Your task to perform on an android device: Open calendar and show me the second week of next month Image 0: 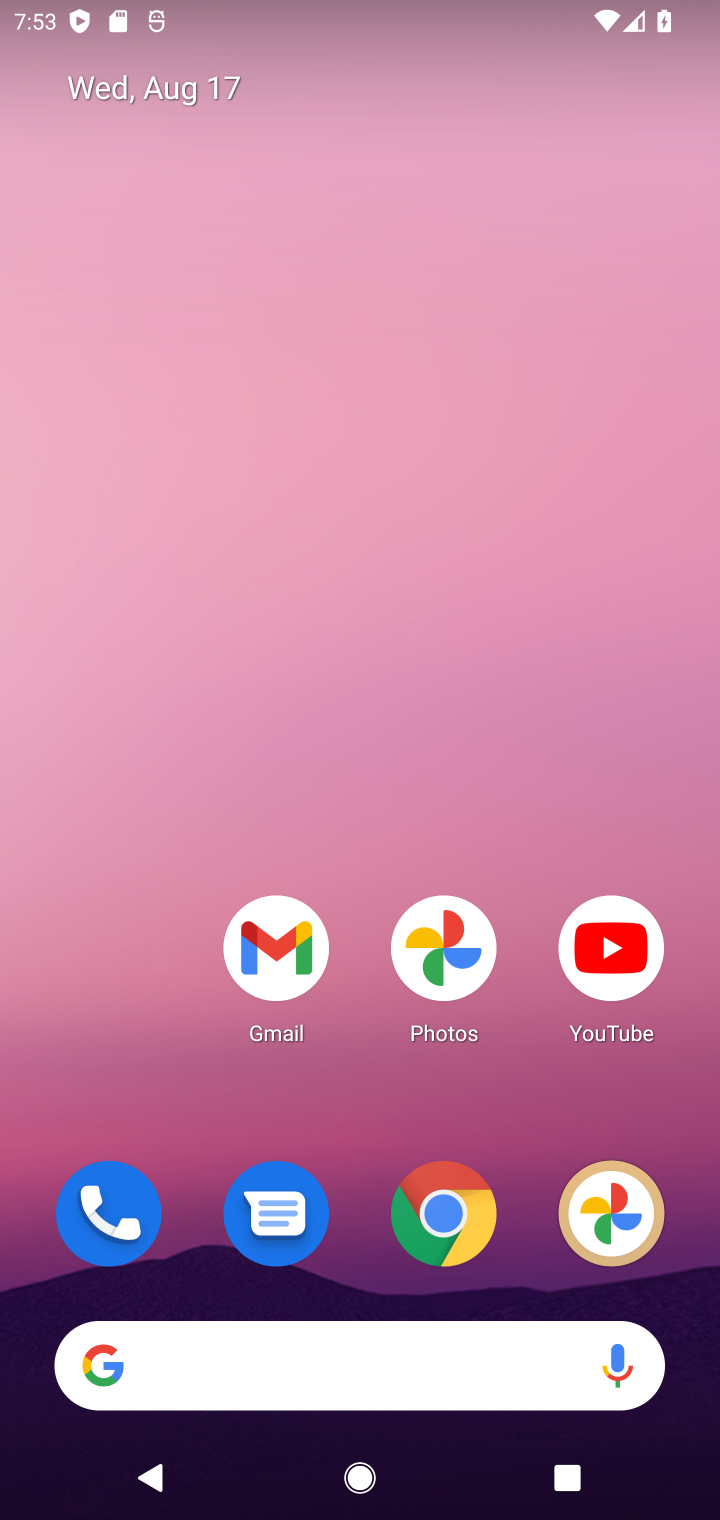
Step 0: drag from (371, 1269) to (367, 233)
Your task to perform on an android device: Open calendar and show me the second week of next month Image 1: 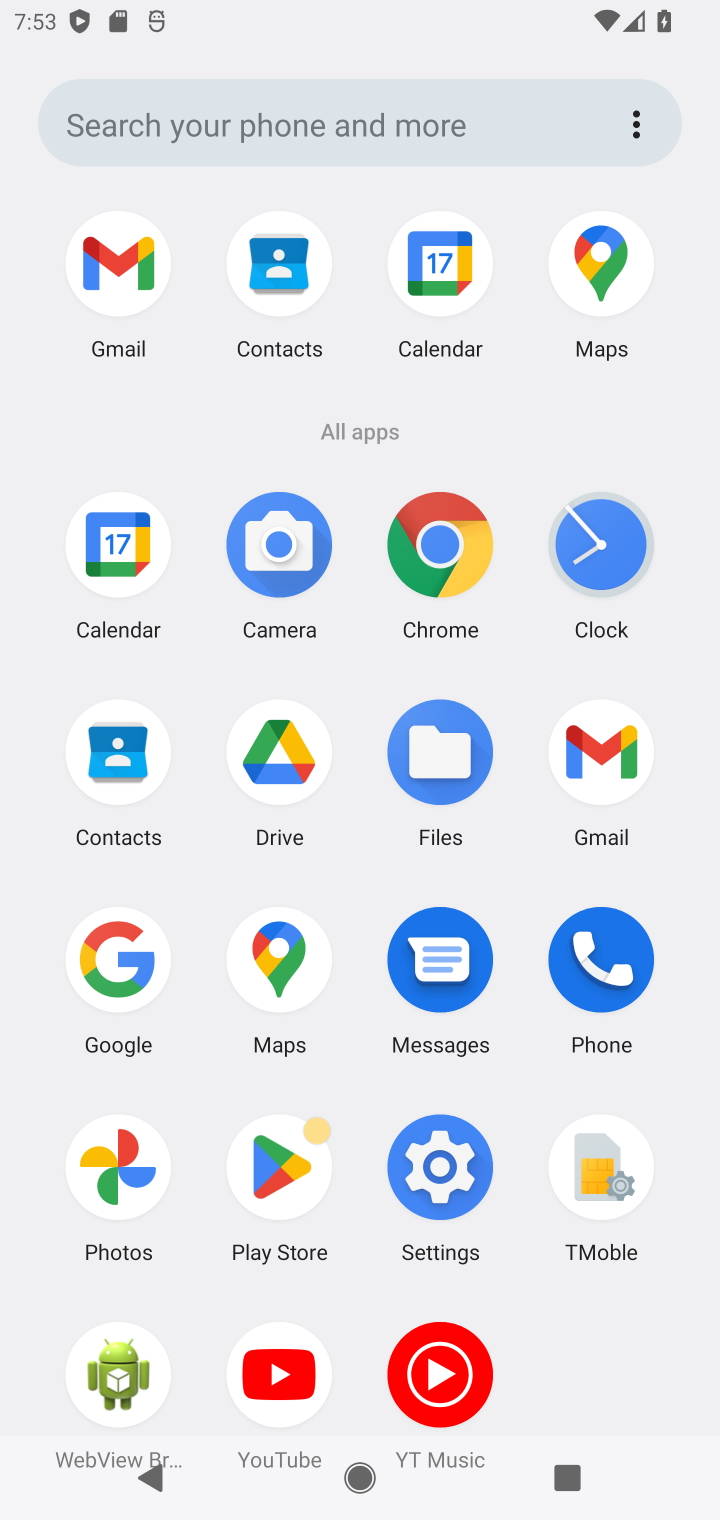
Step 1: click (320, 310)
Your task to perform on an android device: Open calendar and show me the second week of next month Image 2: 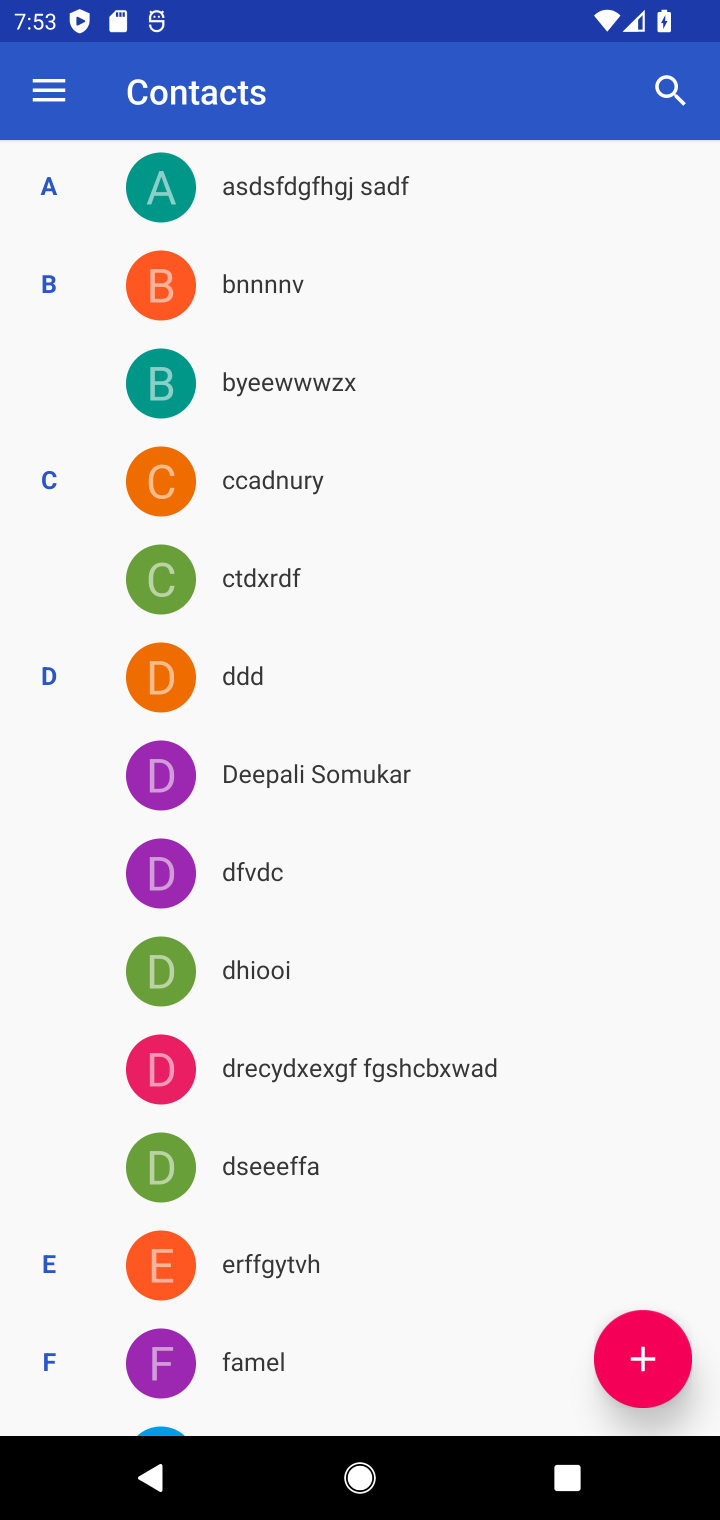
Step 2: press home button
Your task to perform on an android device: Open calendar and show me the second week of next month Image 3: 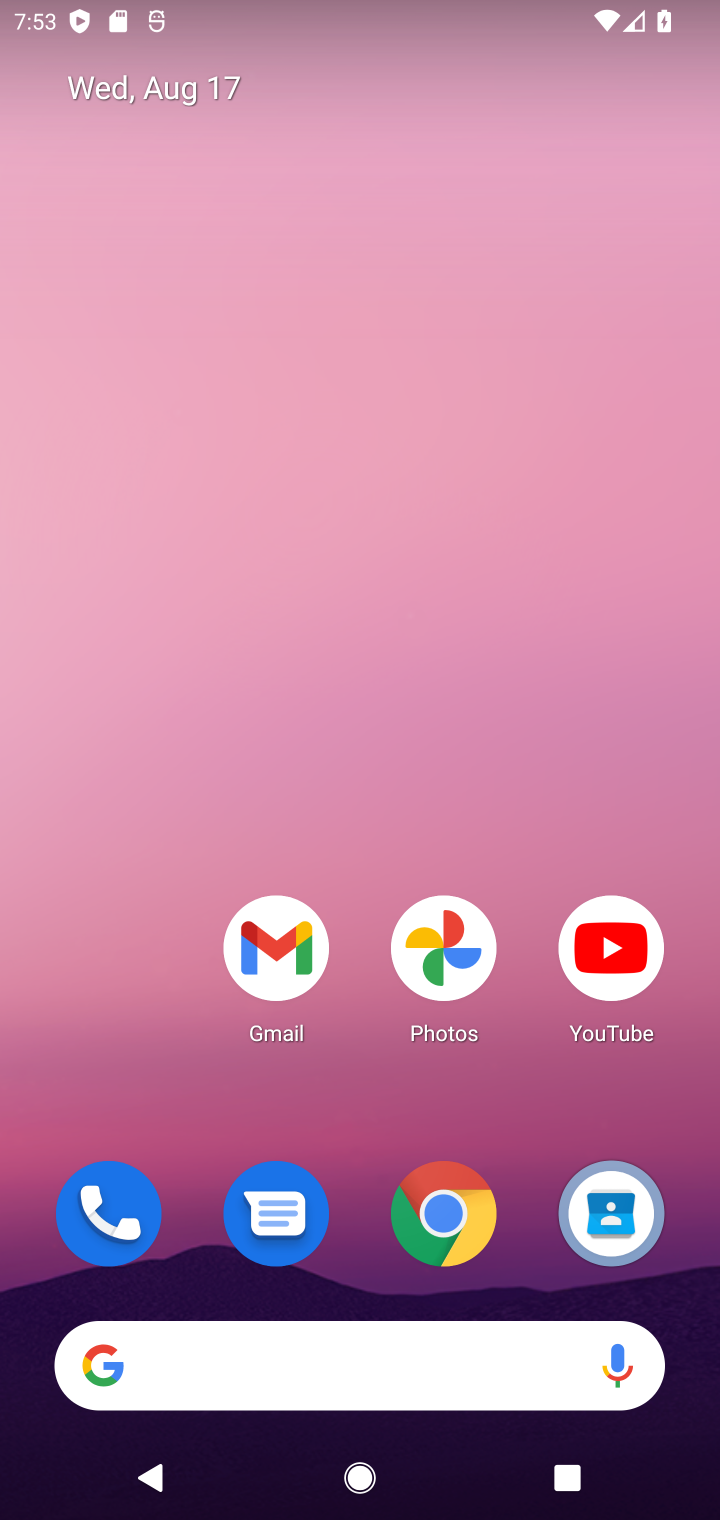
Step 3: drag from (354, 1282) to (124, 45)
Your task to perform on an android device: Open calendar and show me the second week of next month Image 4: 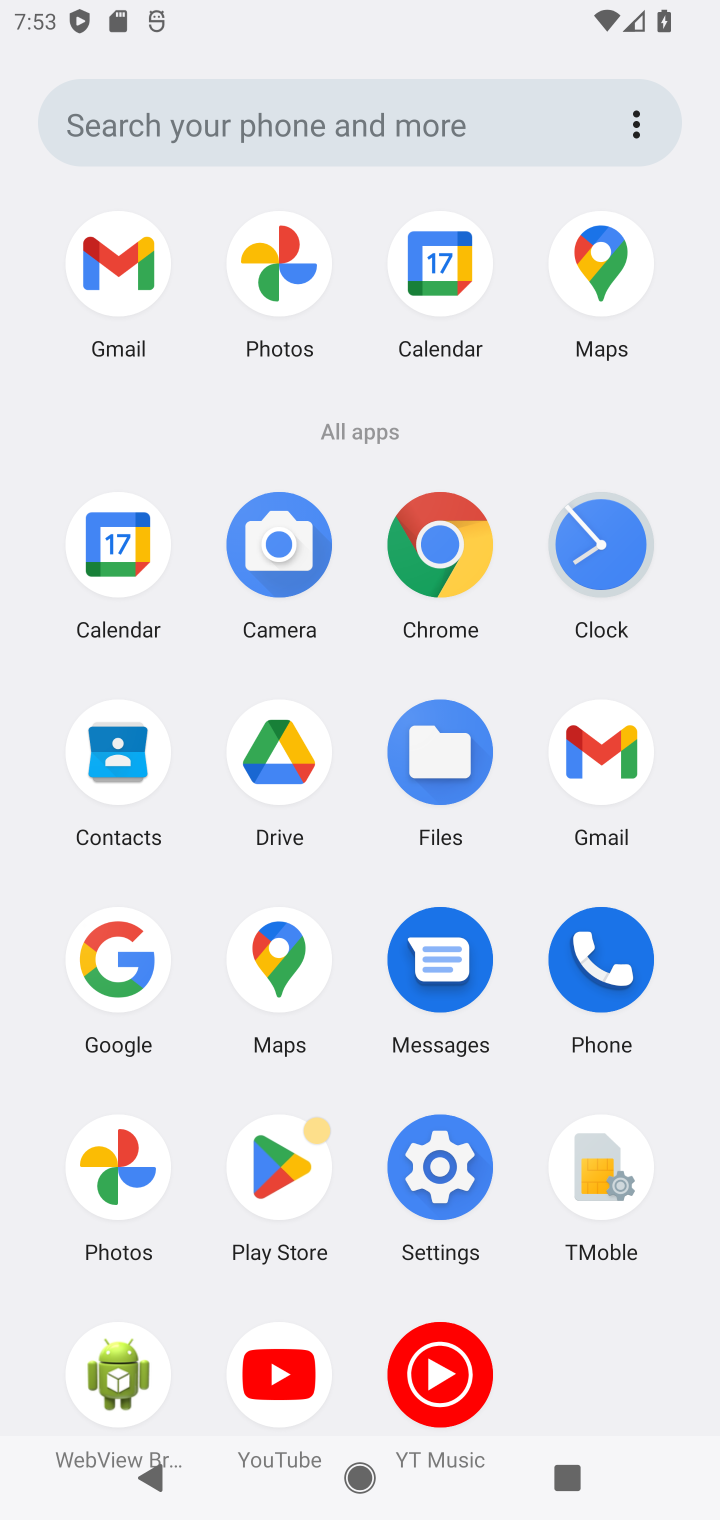
Step 4: click (137, 587)
Your task to perform on an android device: Open calendar and show me the second week of next month Image 5: 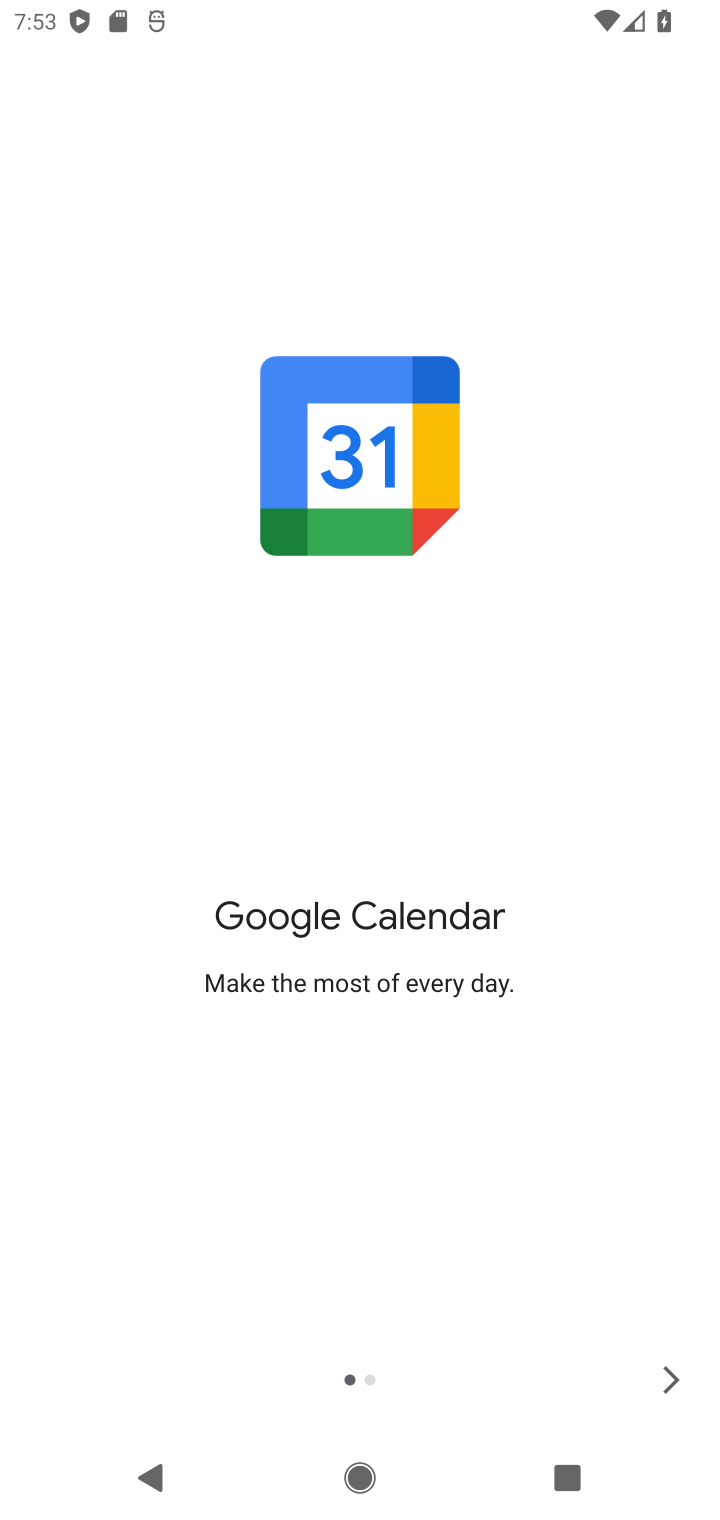
Step 5: click (660, 1418)
Your task to perform on an android device: Open calendar and show me the second week of next month Image 6: 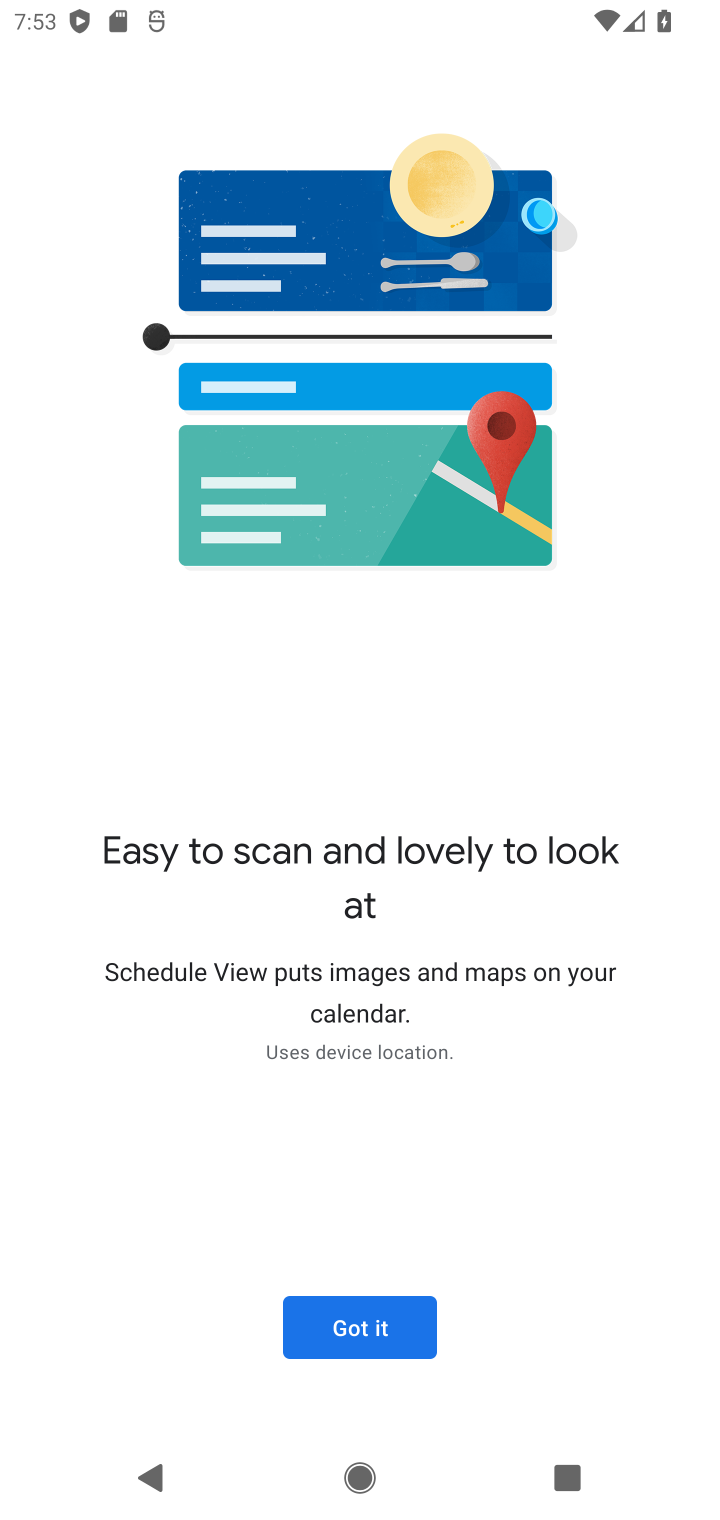
Step 6: click (316, 1299)
Your task to perform on an android device: Open calendar and show me the second week of next month Image 7: 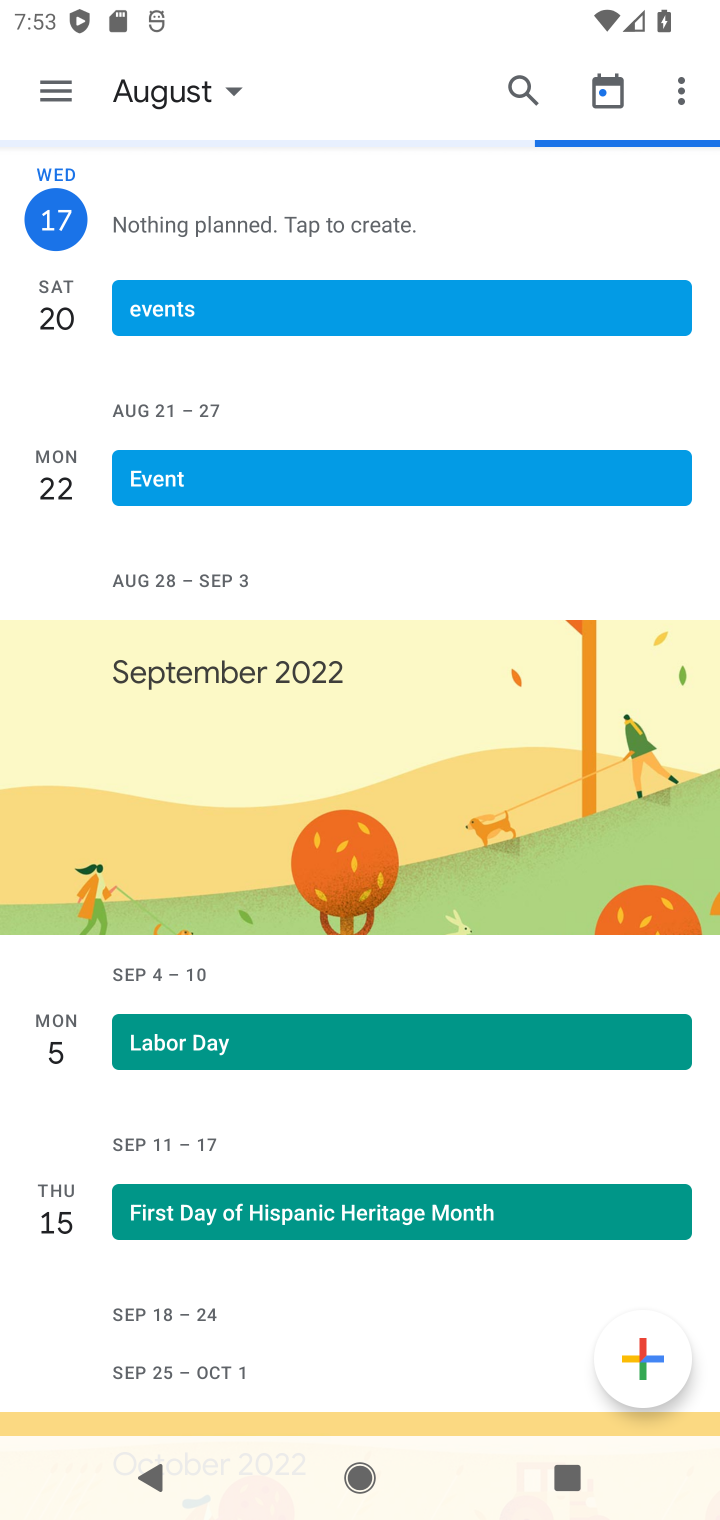
Step 7: task complete